Your task to perform on an android device: Go to Maps Image 0: 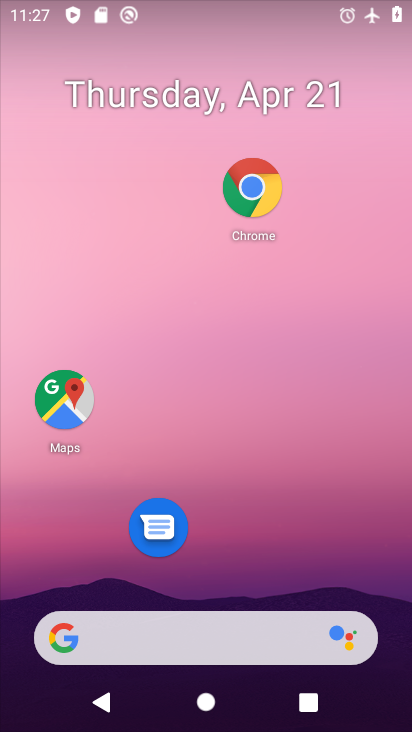
Step 0: drag from (237, 535) to (278, 239)
Your task to perform on an android device: Go to Maps Image 1: 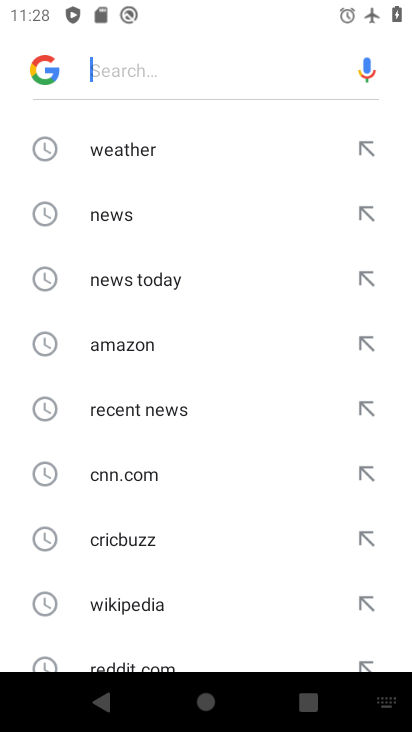
Step 1: press home button
Your task to perform on an android device: Go to Maps Image 2: 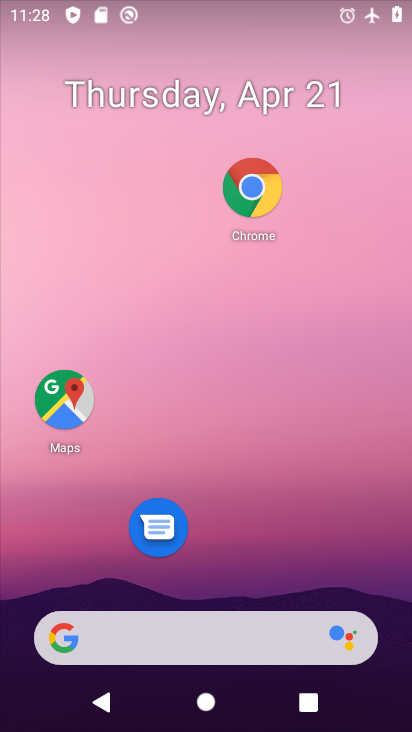
Step 2: drag from (215, 610) to (242, 142)
Your task to perform on an android device: Go to Maps Image 3: 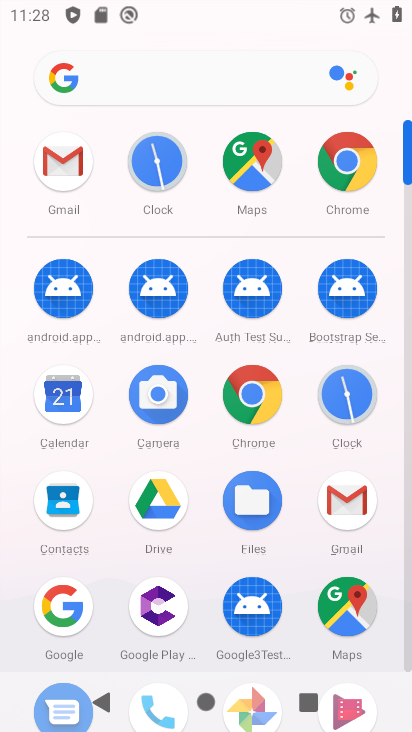
Step 3: click (354, 617)
Your task to perform on an android device: Go to Maps Image 4: 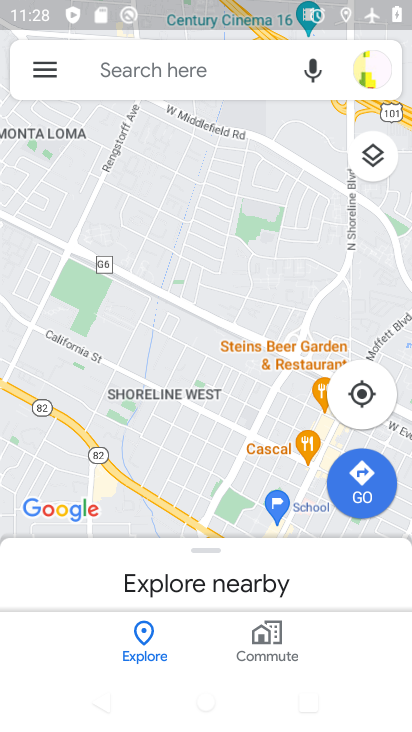
Step 4: task complete